Your task to perform on an android device: open app "The Home Depot" (install if not already installed) Image 0: 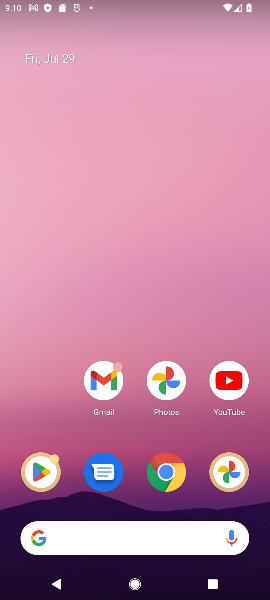
Step 0: press back button
Your task to perform on an android device: open app "The Home Depot" (install if not already installed) Image 1: 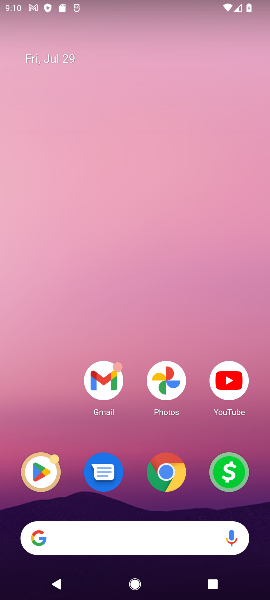
Step 1: drag from (131, 367) to (90, 119)
Your task to perform on an android device: open app "The Home Depot" (install if not already installed) Image 2: 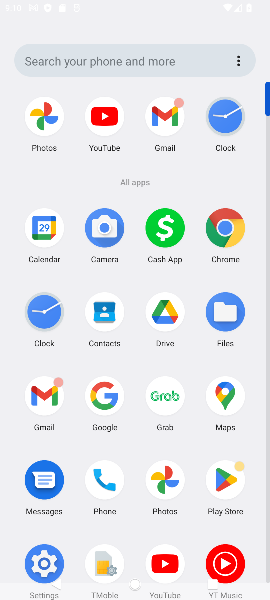
Step 2: drag from (92, 451) to (85, 163)
Your task to perform on an android device: open app "The Home Depot" (install if not already installed) Image 3: 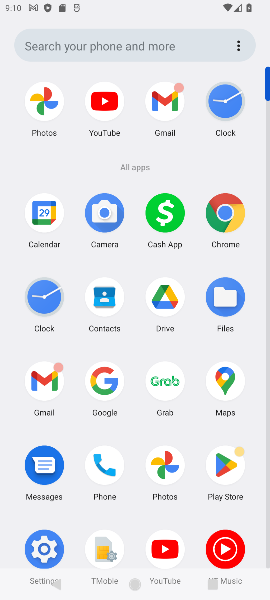
Step 3: drag from (144, 433) to (113, 174)
Your task to perform on an android device: open app "The Home Depot" (install if not already installed) Image 4: 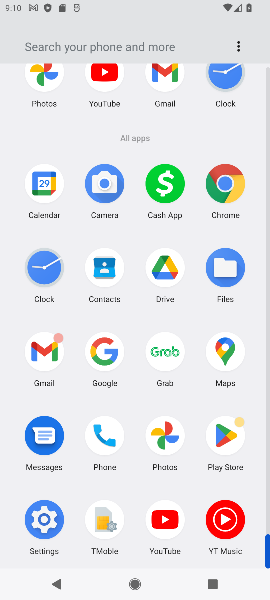
Step 4: click (226, 431)
Your task to perform on an android device: open app "The Home Depot" (install if not already installed) Image 5: 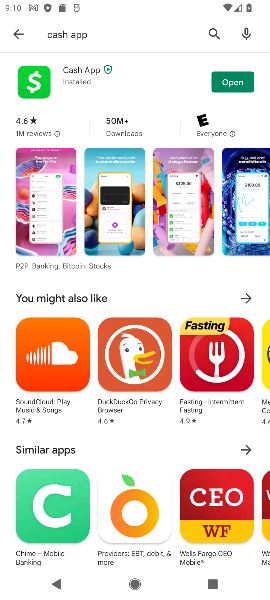
Step 5: click (19, 35)
Your task to perform on an android device: open app "The Home Depot" (install if not already installed) Image 6: 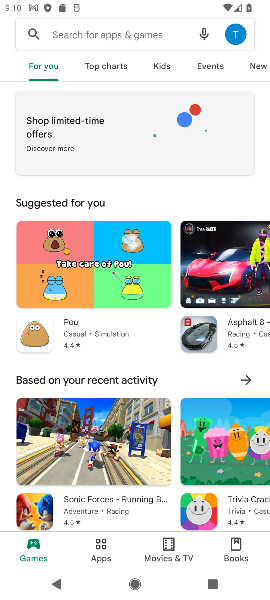
Step 6: click (68, 26)
Your task to perform on an android device: open app "The Home Depot" (install if not already installed) Image 7: 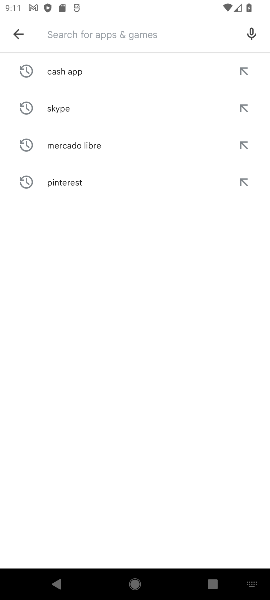
Step 7: type "the home depot"
Your task to perform on an android device: open app "The Home Depot" (install if not already installed) Image 8: 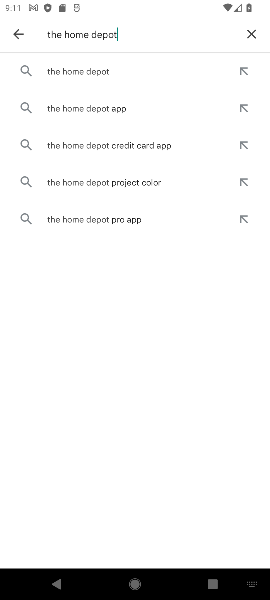
Step 8: click (86, 65)
Your task to perform on an android device: open app "The Home Depot" (install if not already installed) Image 9: 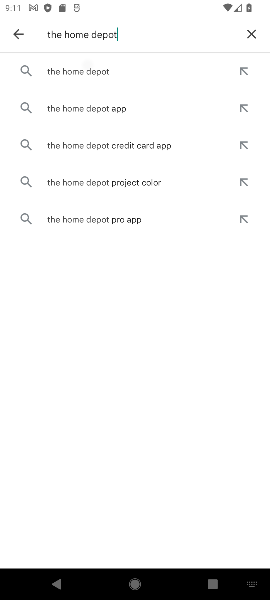
Step 9: click (86, 67)
Your task to perform on an android device: open app "The Home Depot" (install if not already installed) Image 10: 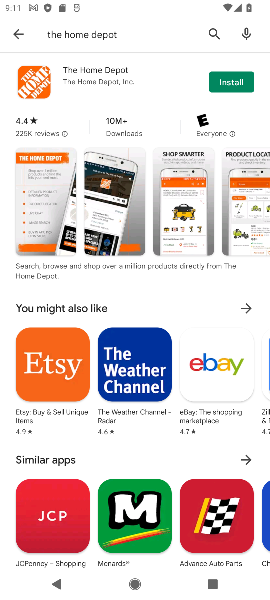
Step 10: click (236, 82)
Your task to perform on an android device: open app "The Home Depot" (install if not already installed) Image 11: 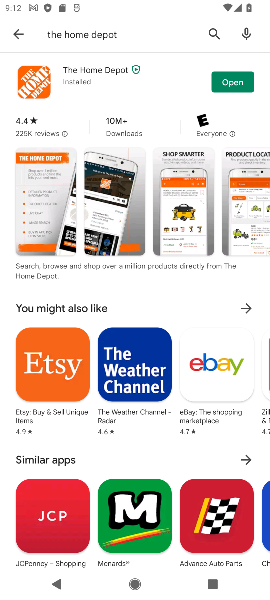
Step 11: click (222, 77)
Your task to perform on an android device: open app "The Home Depot" (install if not already installed) Image 12: 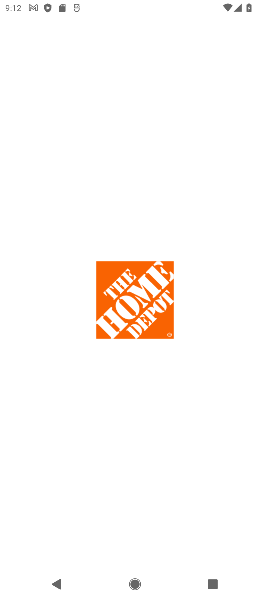
Step 12: click (234, 88)
Your task to perform on an android device: open app "The Home Depot" (install if not already installed) Image 13: 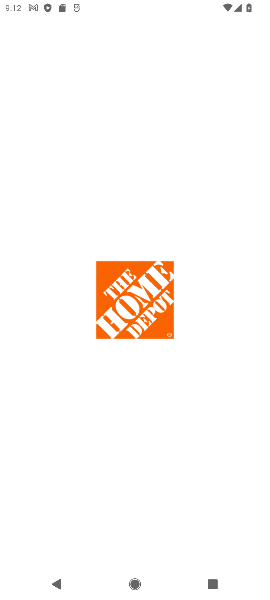
Step 13: click (233, 88)
Your task to perform on an android device: open app "The Home Depot" (install if not already installed) Image 14: 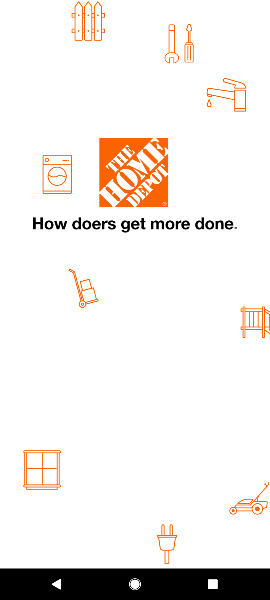
Step 14: task complete